Your task to perform on an android device: delete a single message in the gmail app Image 0: 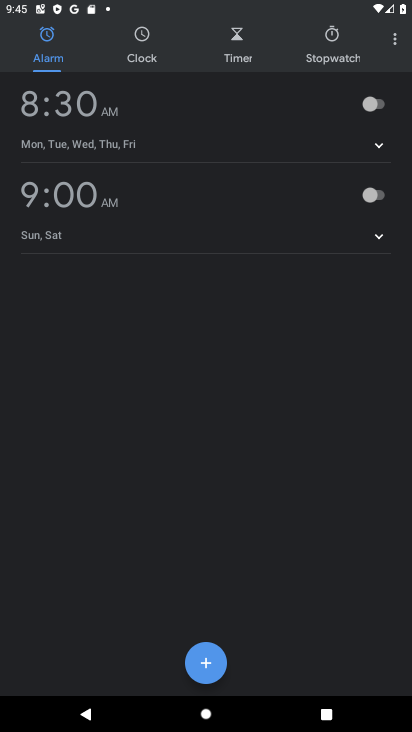
Step 0: press home button
Your task to perform on an android device: delete a single message in the gmail app Image 1: 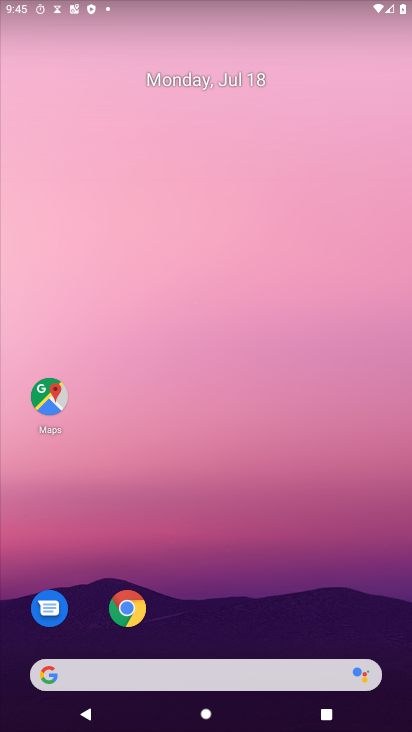
Step 1: drag from (190, 584) to (157, 190)
Your task to perform on an android device: delete a single message in the gmail app Image 2: 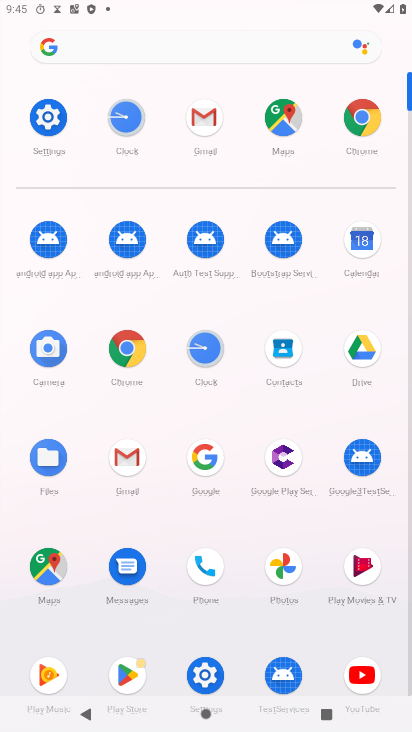
Step 2: click (203, 156)
Your task to perform on an android device: delete a single message in the gmail app Image 3: 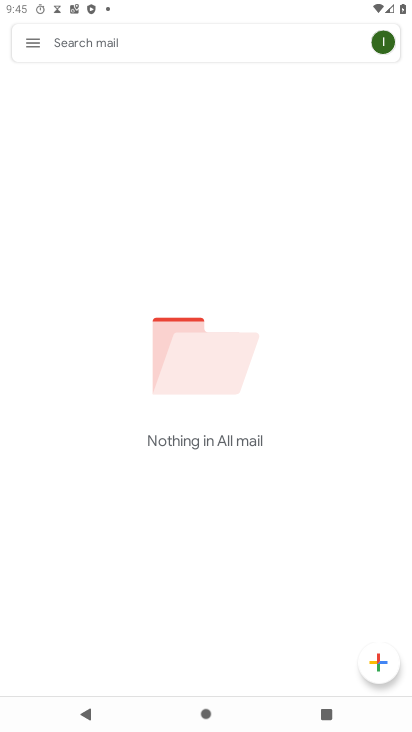
Step 3: task complete